Your task to perform on an android device: turn on showing notifications on the lock screen Image 0: 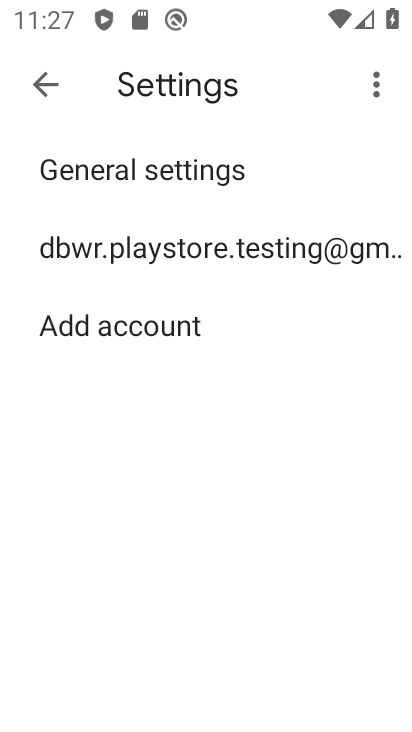
Step 0: press home button
Your task to perform on an android device: turn on showing notifications on the lock screen Image 1: 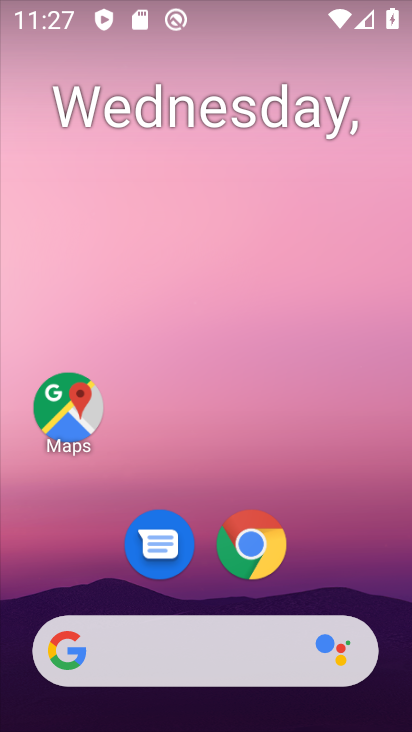
Step 1: drag from (323, 570) to (360, 18)
Your task to perform on an android device: turn on showing notifications on the lock screen Image 2: 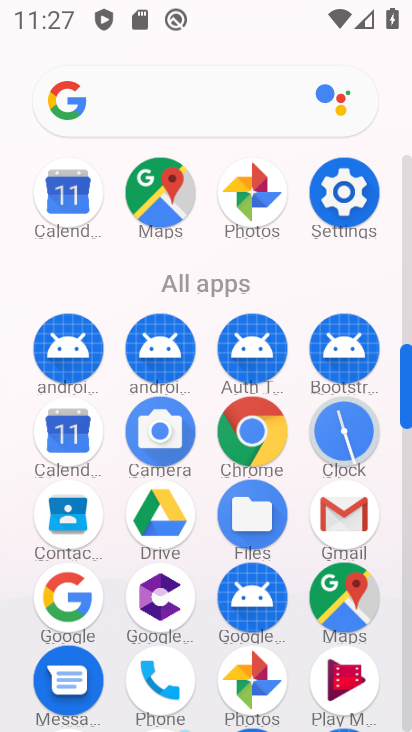
Step 2: click (357, 235)
Your task to perform on an android device: turn on showing notifications on the lock screen Image 3: 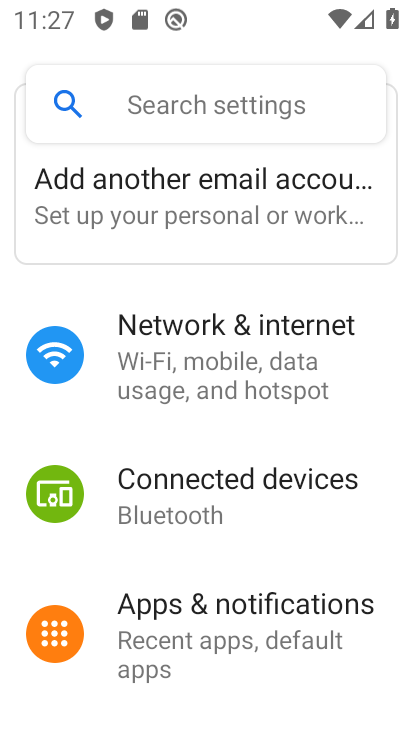
Step 3: click (166, 639)
Your task to perform on an android device: turn on showing notifications on the lock screen Image 4: 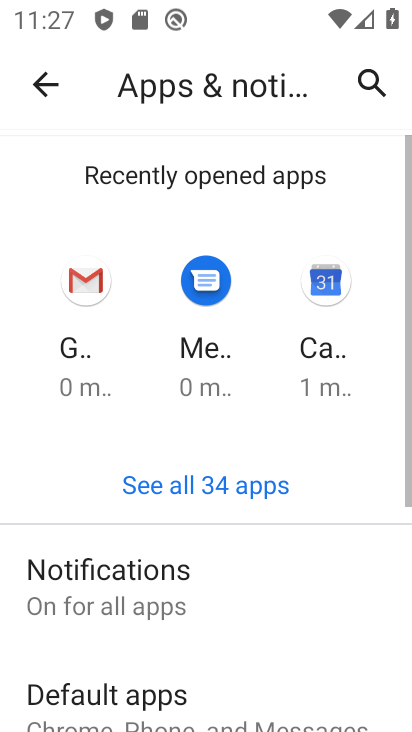
Step 4: drag from (260, 646) to (296, 284)
Your task to perform on an android device: turn on showing notifications on the lock screen Image 5: 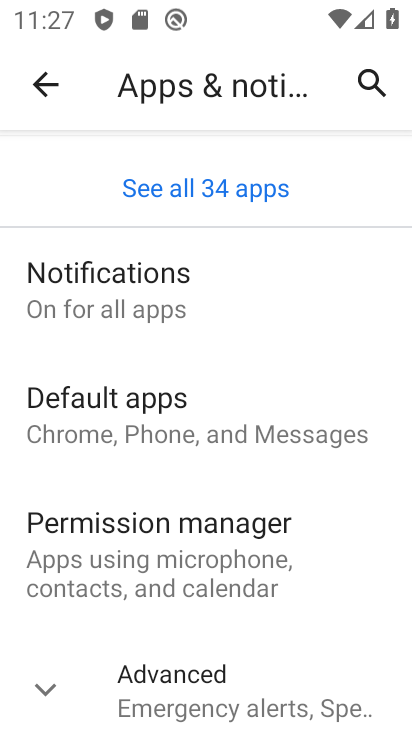
Step 5: drag from (205, 653) to (273, 313)
Your task to perform on an android device: turn on showing notifications on the lock screen Image 6: 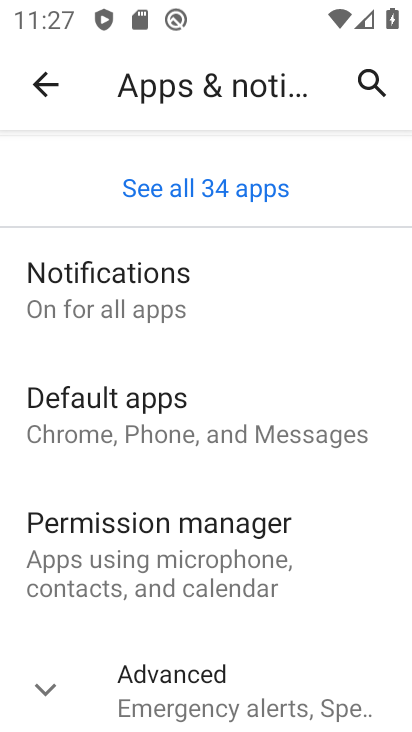
Step 6: click (137, 686)
Your task to perform on an android device: turn on showing notifications on the lock screen Image 7: 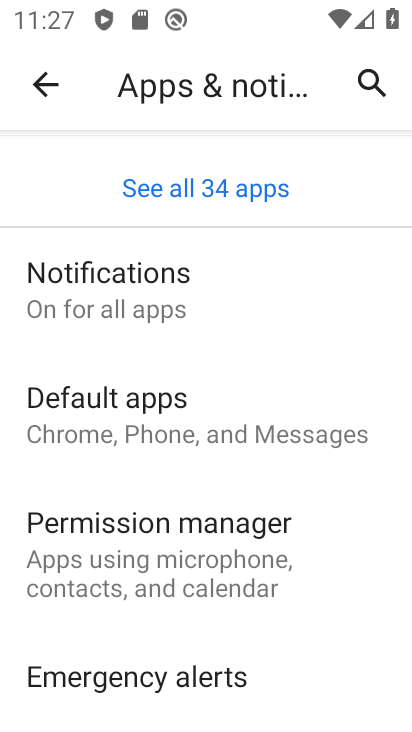
Step 7: click (309, 314)
Your task to perform on an android device: turn on showing notifications on the lock screen Image 8: 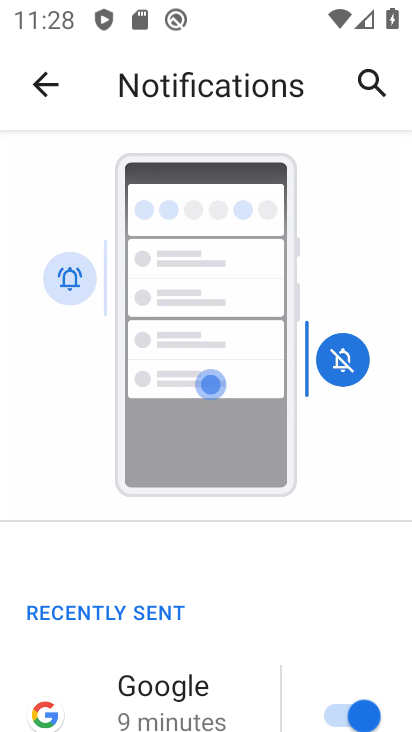
Step 8: drag from (242, 601) to (257, 273)
Your task to perform on an android device: turn on showing notifications on the lock screen Image 9: 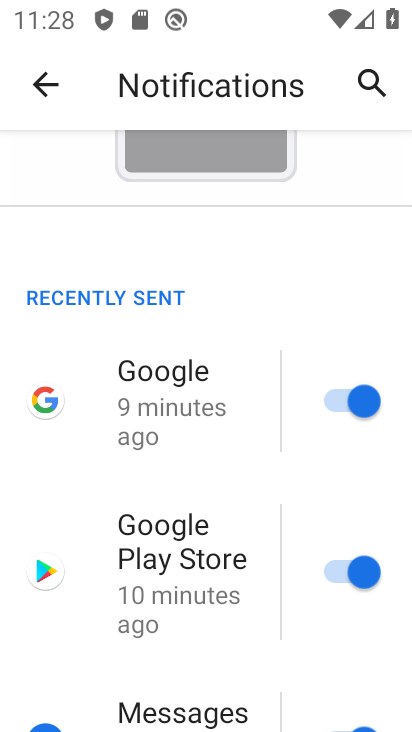
Step 9: drag from (227, 650) to (246, 258)
Your task to perform on an android device: turn on showing notifications on the lock screen Image 10: 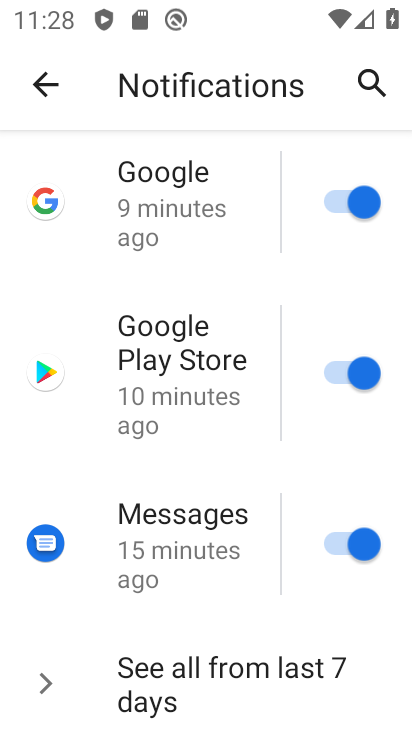
Step 10: drag from (247, 451) to (281, 244)
Your task to perform on an android device: turn on showing notifications on the lock screen Image 11: 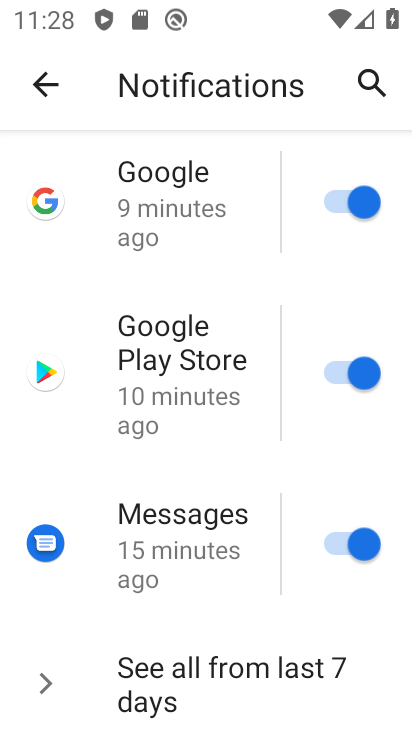
Step 11: drag from (173, 623) to (272, 272)
Your task to perform on an android device: turn on showing notifications on the lock screen Image 12: 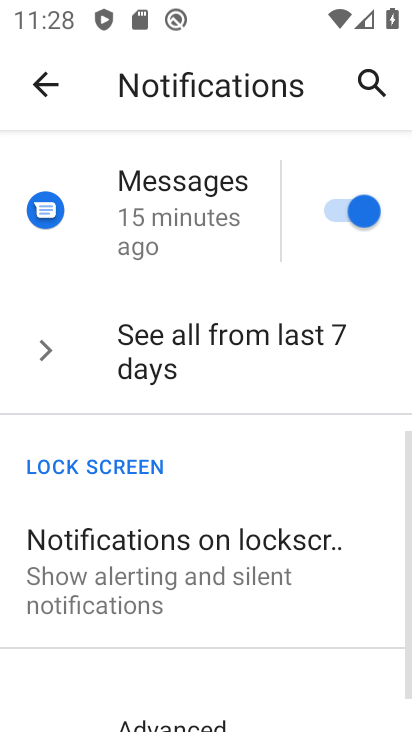
Step 12: click (183, 633)
Your task to perform on an android device: turn on showing notifications on the lock screen Image 13: 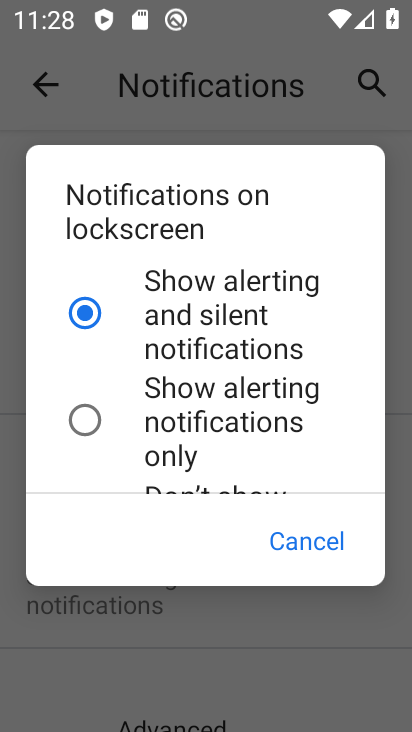
Step 13: task complete